Your task to perform on an android device: open app "Google Docs" Image 0: 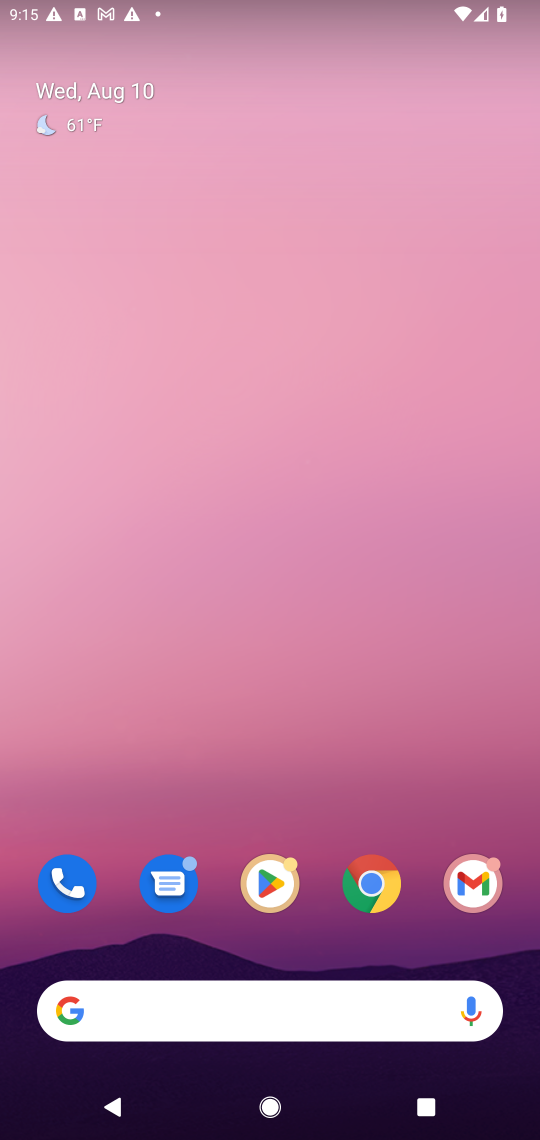
Step 0: click (259, 878)
Your task to perform on an android device: open app "Google Docs" Image 1: 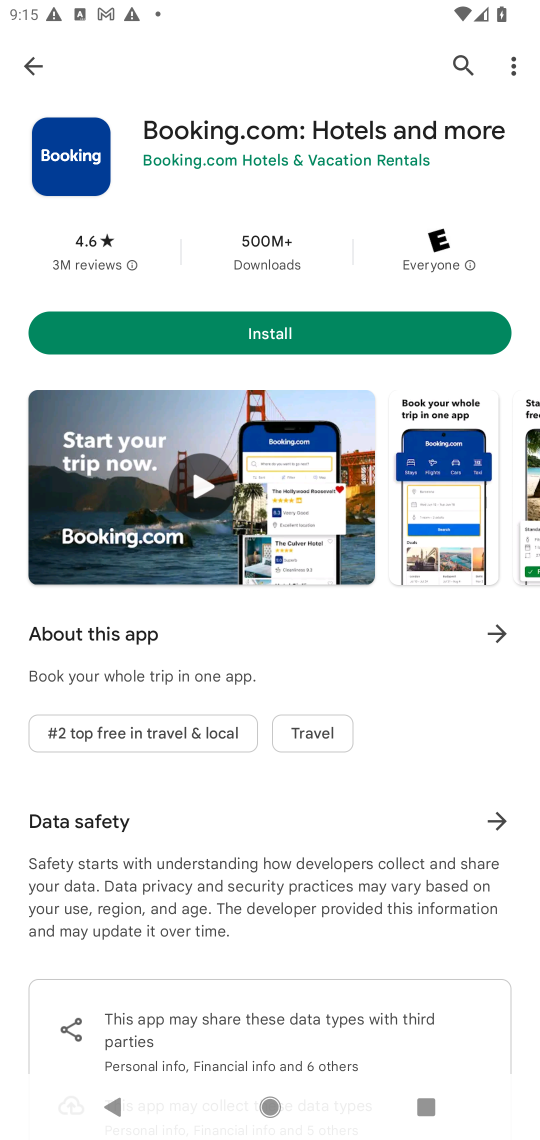
Step 1: click (449, 62)
Your task to perform on an android device: open app "Google Docs" Image 2: 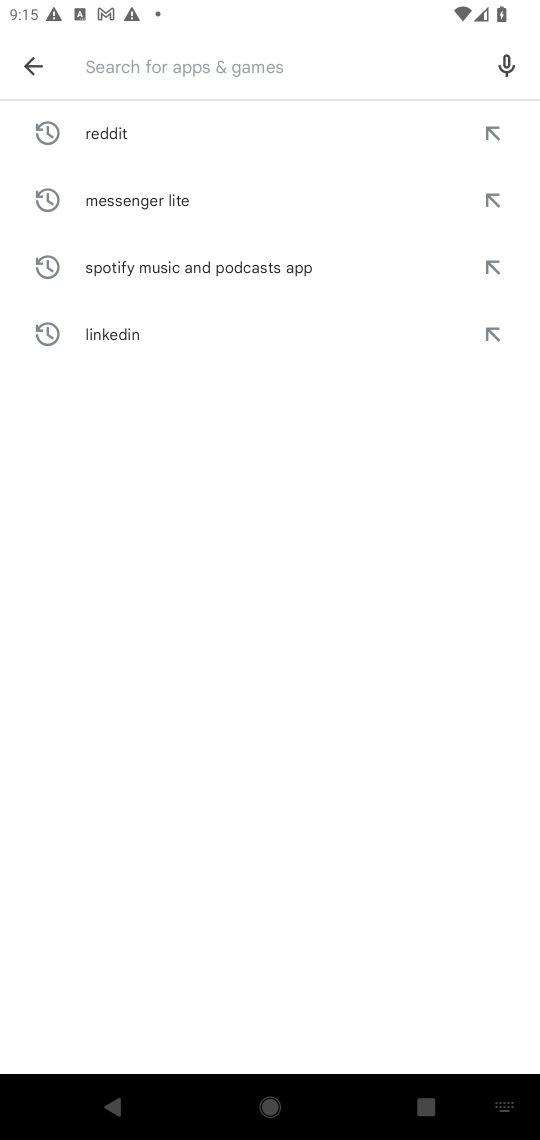
Step 2: type "Google Docs"
Your task to perform on an android device: open app "Google Docs" Image 3: 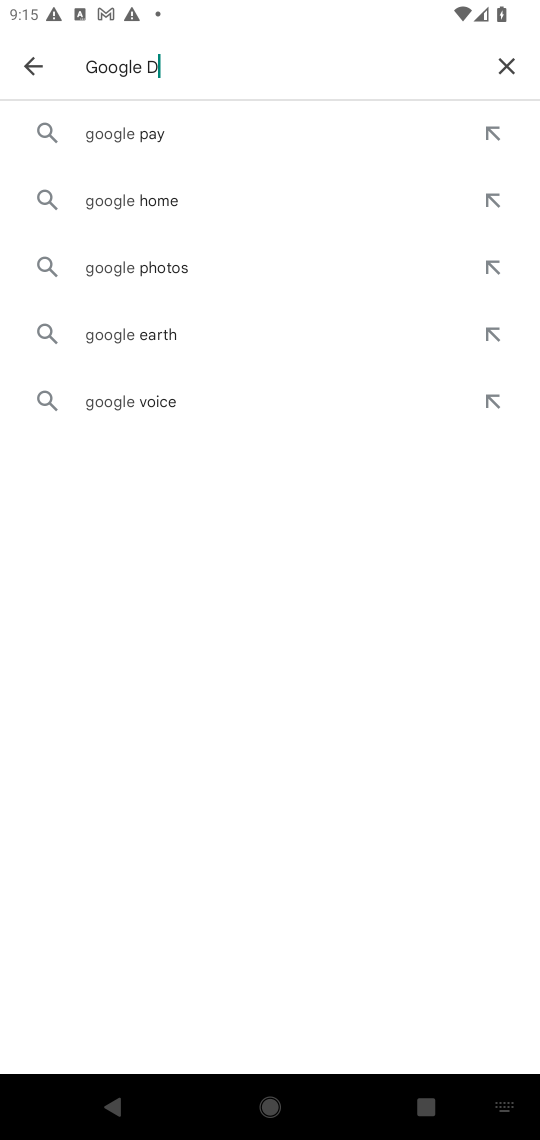
Step 3: type ""
Your task to perform on an android device: open app "Google Docs" Image 4: 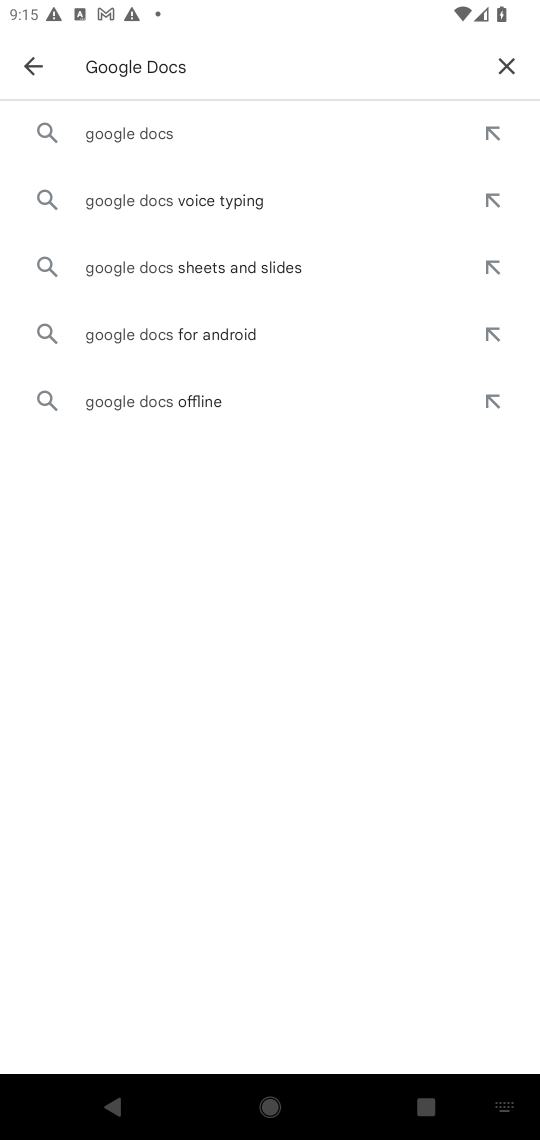
Step 4: click (167, 125)
Your task to perform on an android device: open app "Google Docs" Image 5: 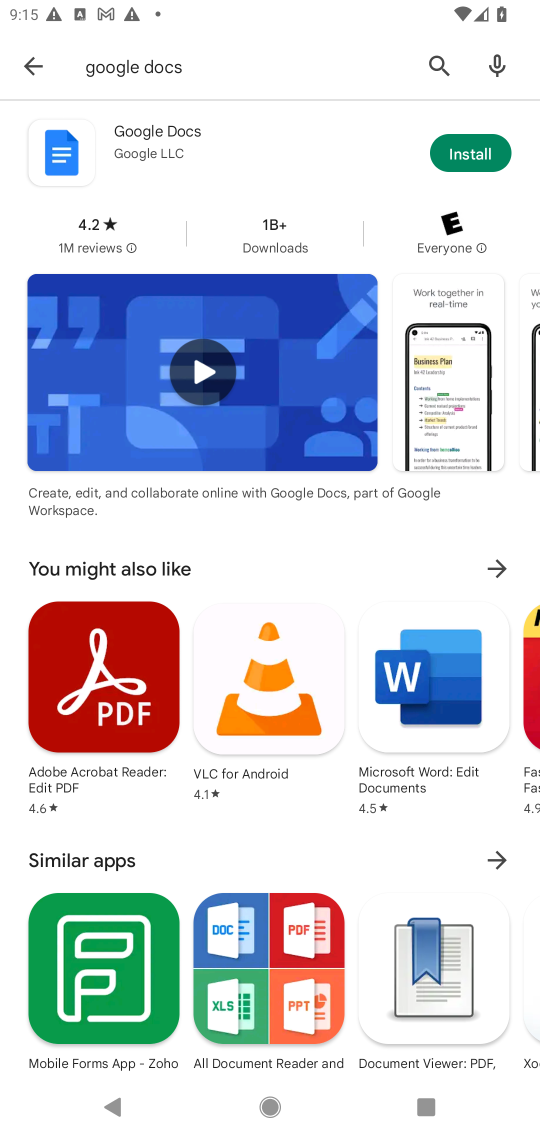
Step 5: task complete